Your task to perform on an android device: Go to ESPN.com Image 0: 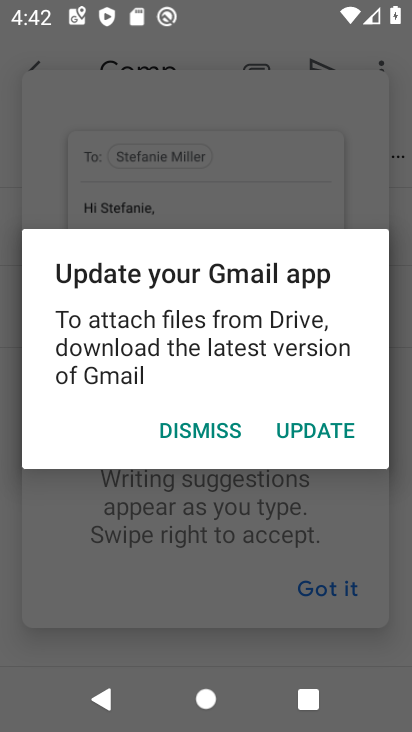
Step 0: press home button
Your task to perform on an android device: Go to ESPN.com Image 1: 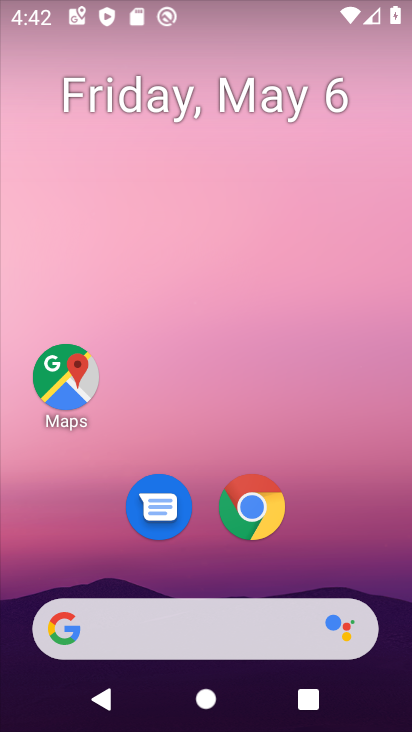
Step 1: click (254, 516)
Your task to perform on an android device: Go to ESPN.com Image 2: 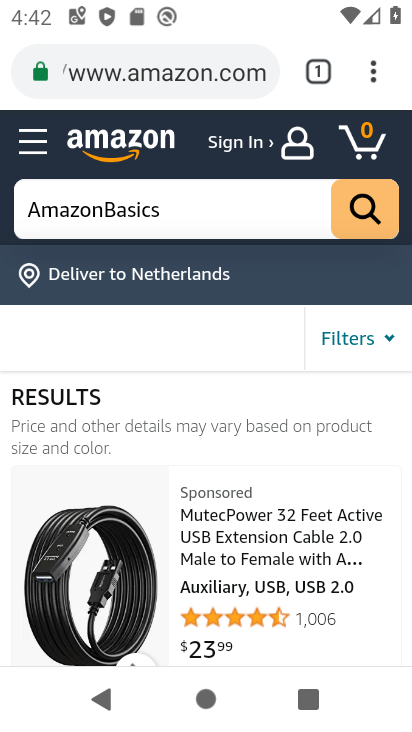
Step 2: click (369, 72)
Your task to perform on an android device: Go to ESPN.com Image 3: 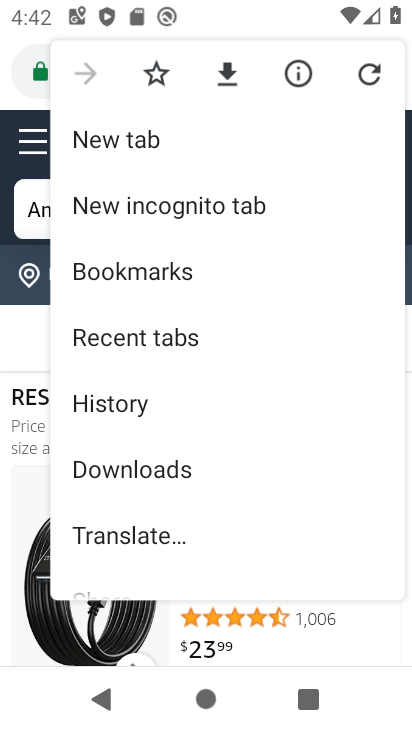
Step 3: drag from (245, 444) to (173, 192)
Your task to perform on an android device: Go to ESPN.com Image 4: 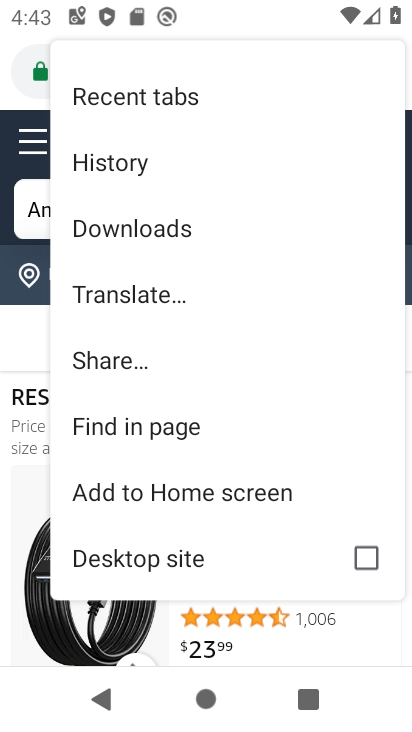
Step 4: drag from (237, 128) to (234, 23)
Your task to perform on an android device: Go to ESPN.com Image 5: 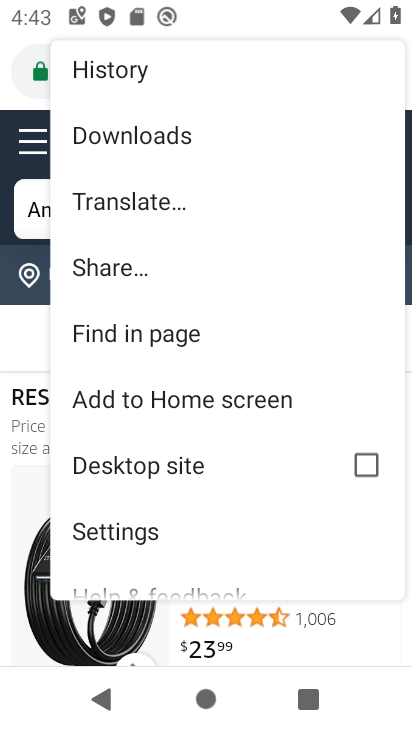
Step 5: drag from (354, 542) to (409, 650)
Your task to perform on an android device: Go to ESPN.com Image 6: 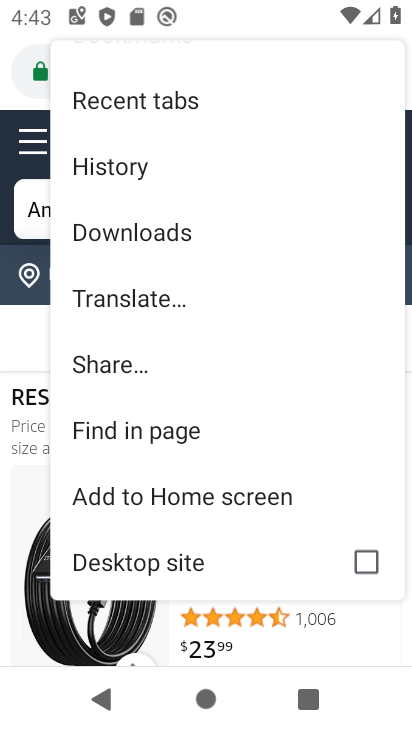
Step 6: drag from (200, 348) to (278, 478)
Your task to perform on an android device: Go to ESPN.com Image 7: 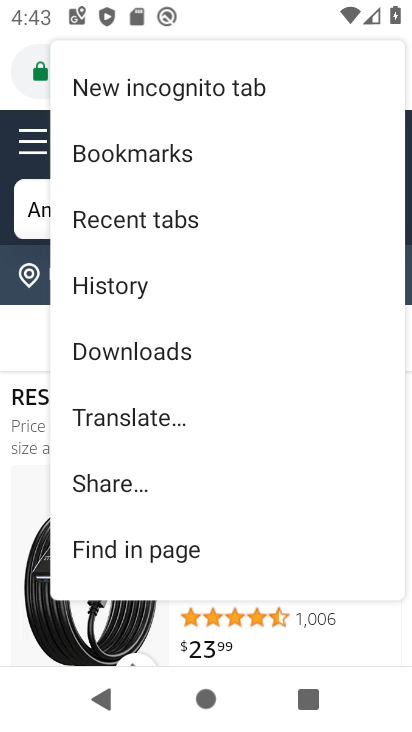
Step 7: drag from (270, 137) to (315, 578)
Your task to perform on an android device: Go to ESPN.com Image 8: 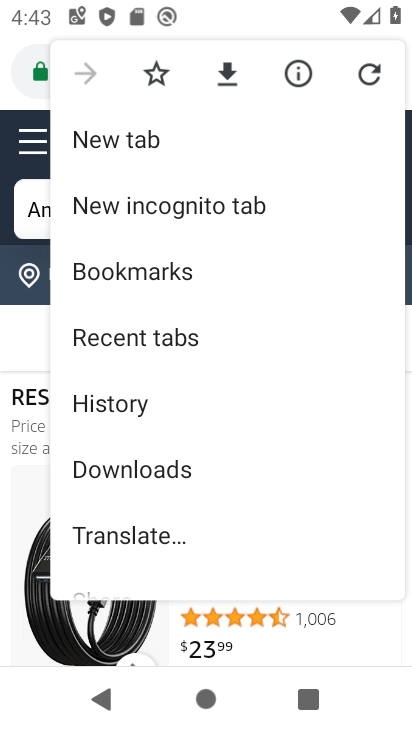
Step 8: click (119, 140)
Your task to perform on an android device: Go to ESPN.com Image 9: 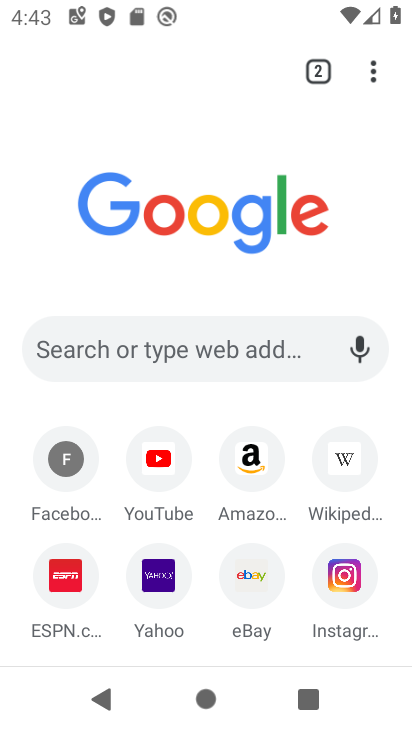
Step 9: click (119, 140)
Your task to perform on an android device: Go to ESPN.com Image 10: 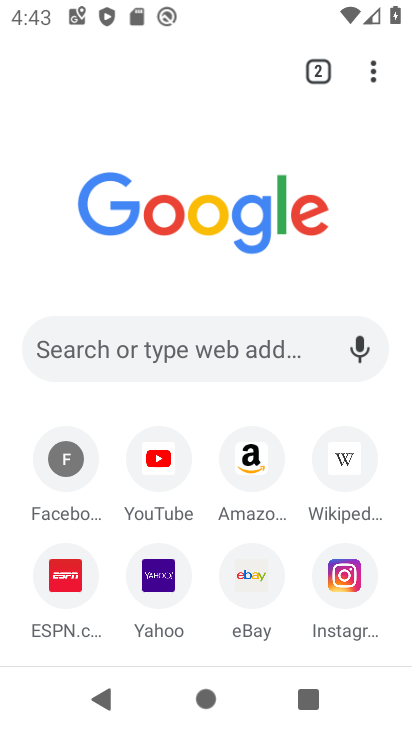
Step 10: click (58, 576)
Your task to perform on an android device: Go to ESPN.com Image 11: 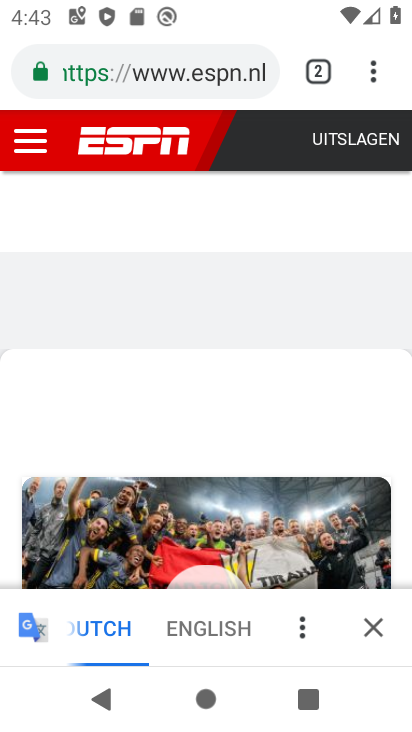
Step 11: task complete